Your task to perform on an android device: Check the weather Image 0: 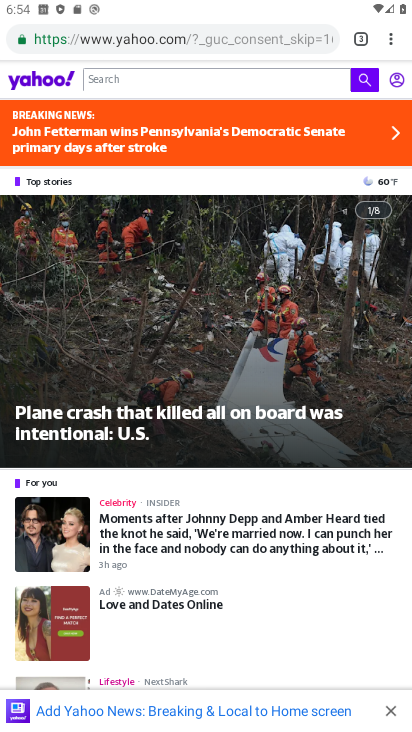
Step 0: press home button
Your task to perform on an android device: Check the weather Image 1: 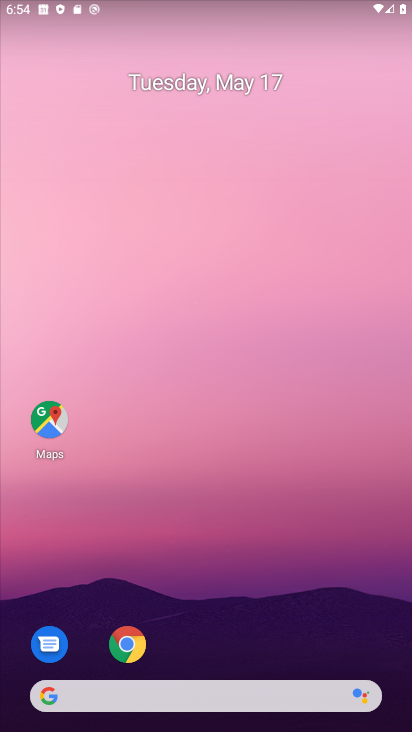
Step 1: drag from (269, 633) to (259, 304)
Your task to perform on an android device: Check the weather Image 2: 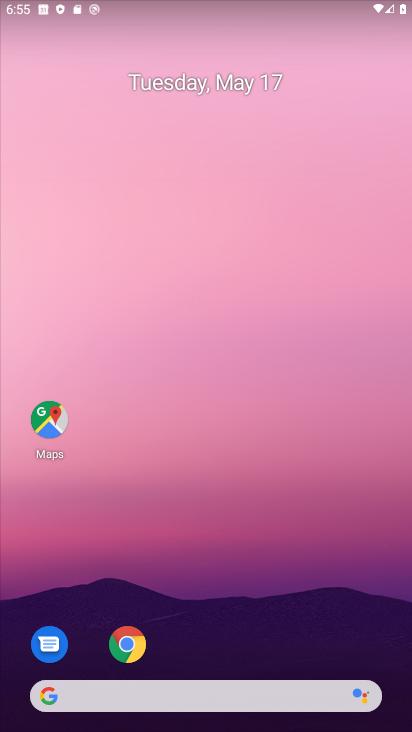
Step 2: drag from (282, 610) to (276, 174)
Your task to perform on an android device: Check the weather Image 3: 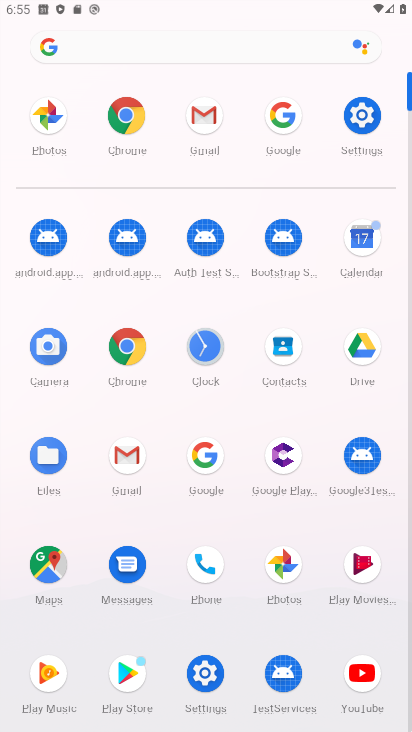
Step 3: click (200, 457)
Your task to perform on an android device: Check the weather Image 4: 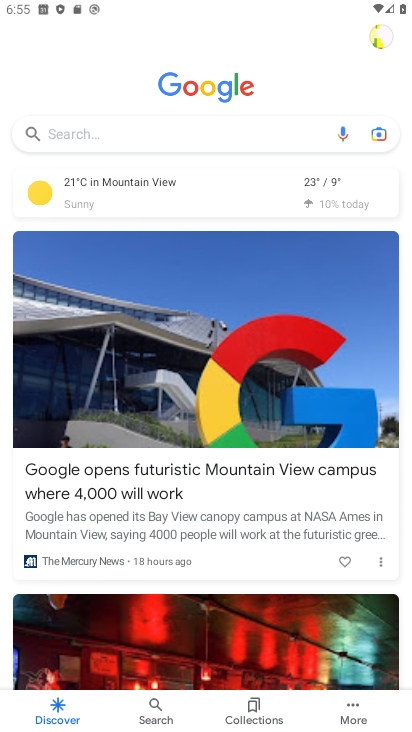
Step 4: click (164, 124)
Your task to perform on an android device: Check the weather Image 5: 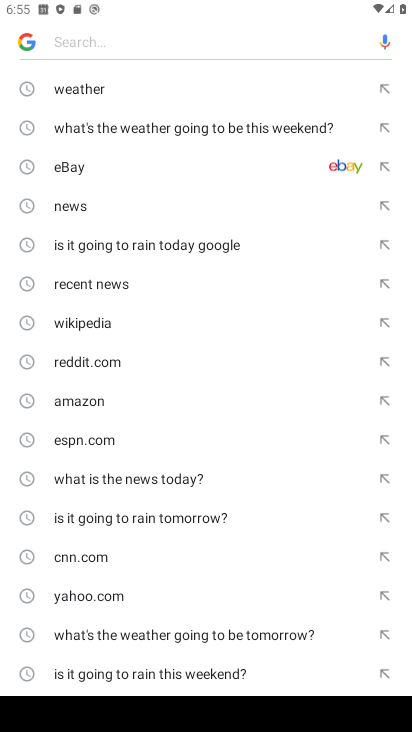
Step 5: click (143, 82)
Your task to perform on an android device: Check the weather Image 6: 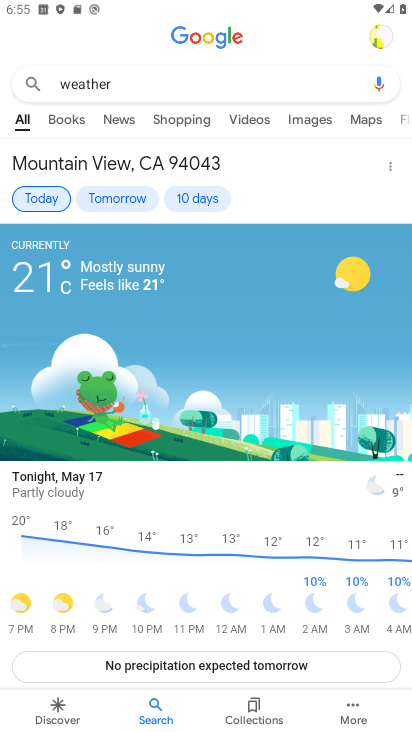
Step 6: task complete